Your task to perform on an android device: change your default location settings in chrome Image 0: 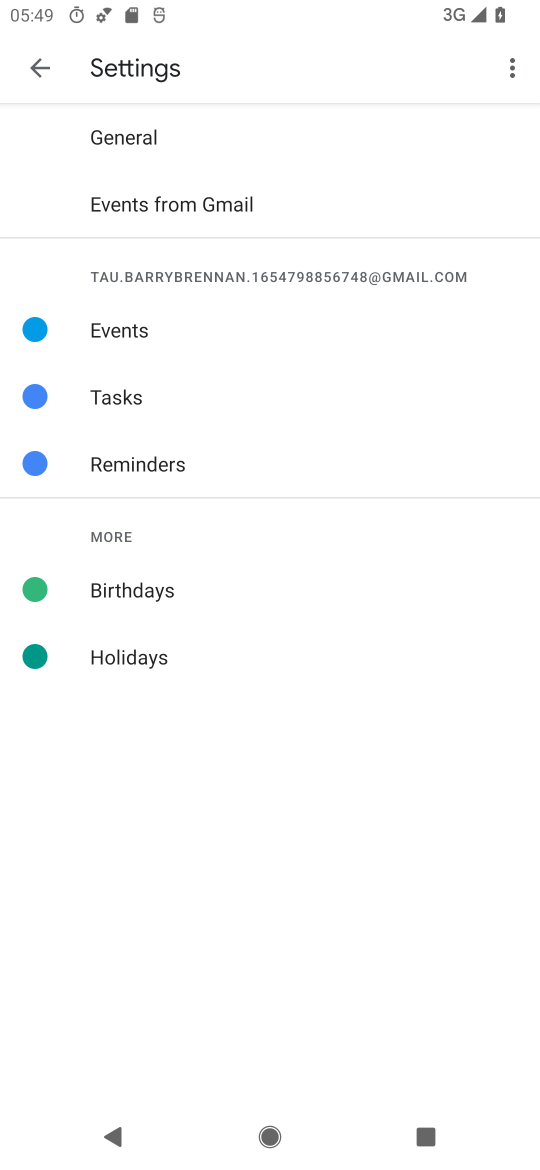
Step 0: press home button
Your task to perform on an android device: change your default location settings in chrome Image 1: 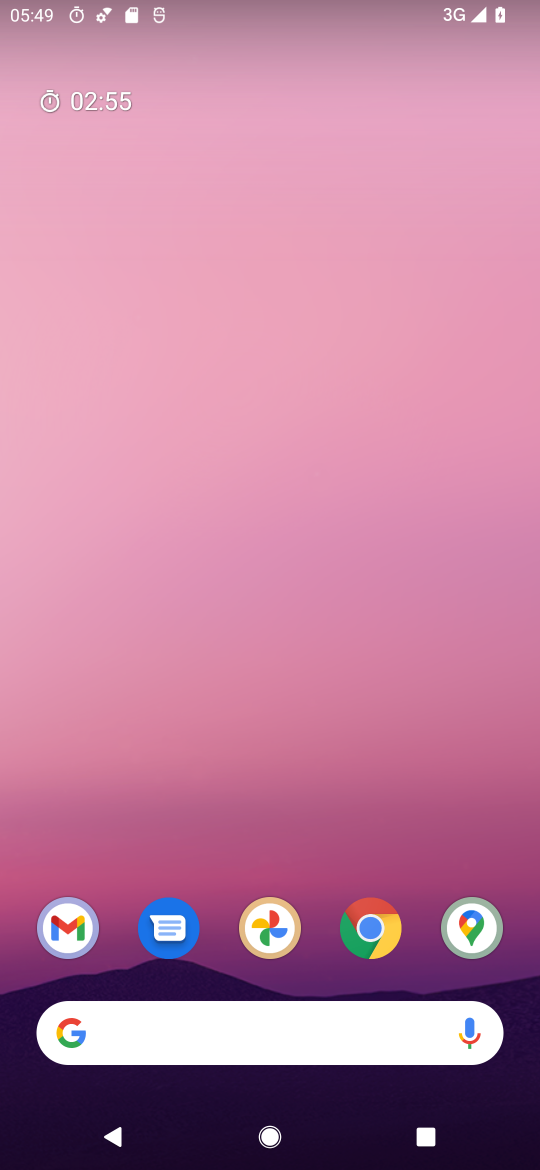
Step 1: click (360, 933)
Your task to perform on an android device: change your default location settings in chrome Image 2: 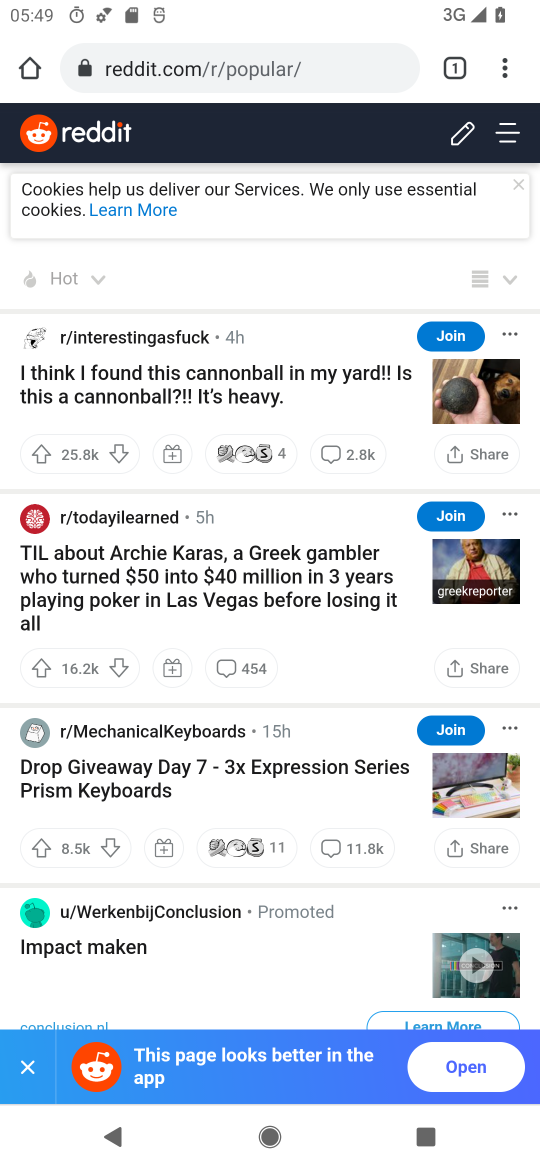
Step 2: click (506, 70)
Your task to perform on an android device: change your default location settings in chrome Image 3: 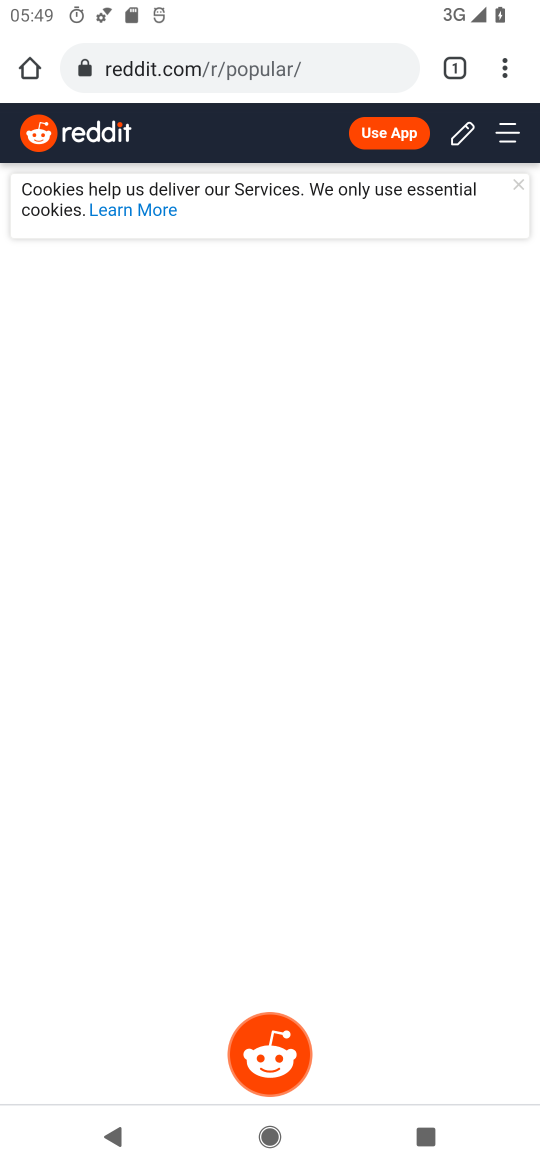
Step 3: click (507, 64)
Your task to perform on an android device: change your default location settings in chrome Image 4: 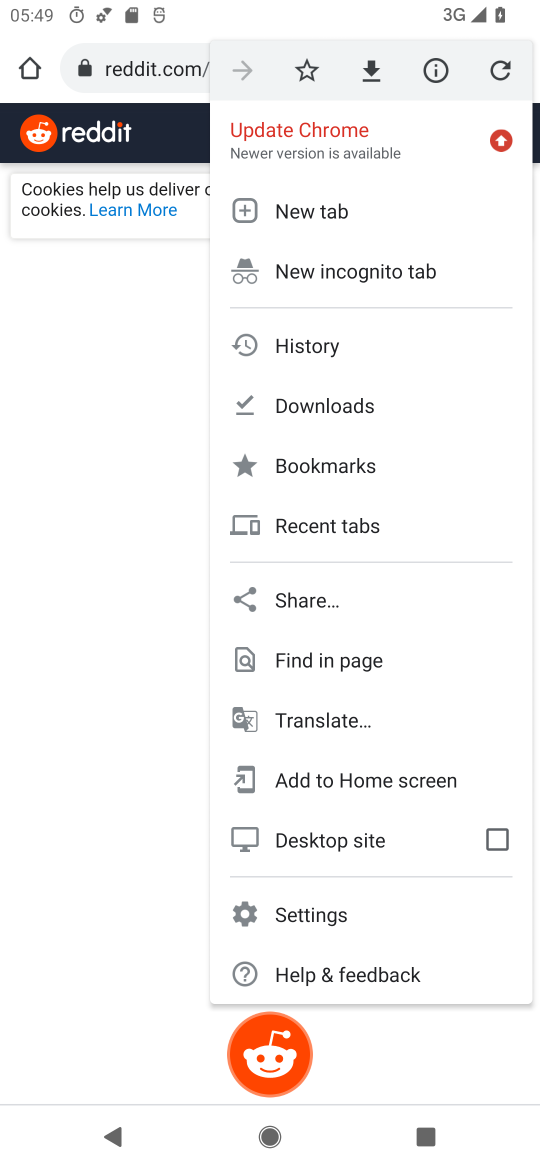
Step 4: click (323, 925)
Your task to perform on an android device: change your default location settings in chrome Image 5: 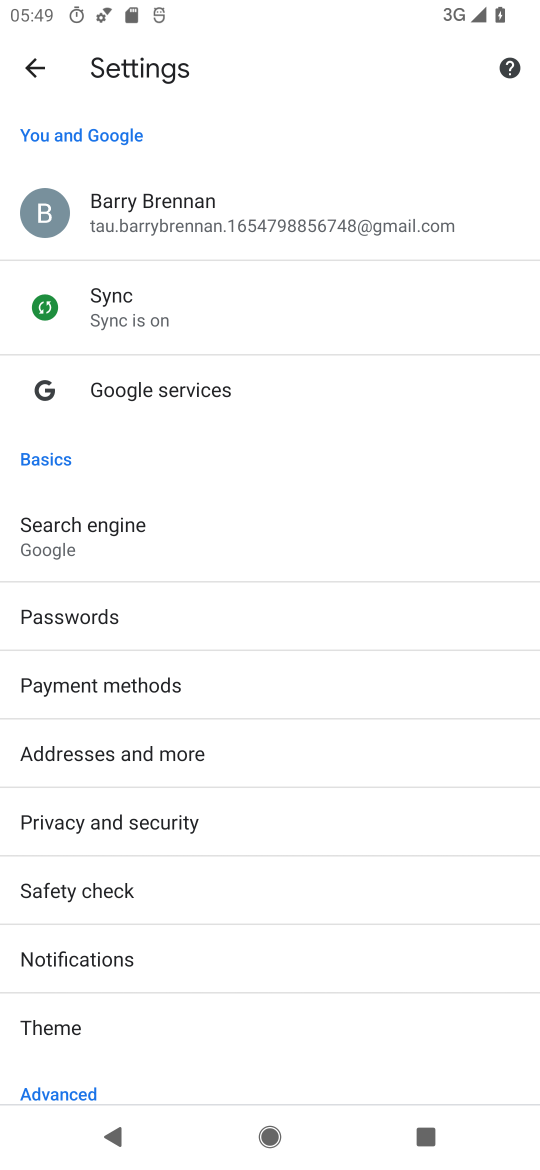
Step 5: drag from (125, 960) to (187, 585)
Your task to perform on an android device: change your default location settings in chrome Image 6: 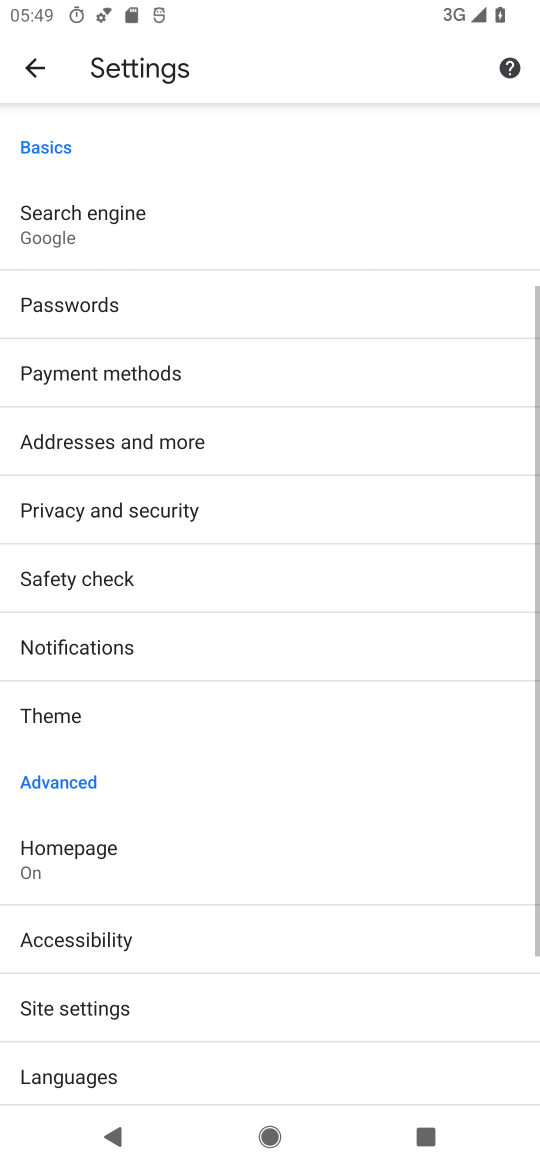
Step 6: click (122, 1008)
Your task to perform on an android device: change your default location settings in chrome Image 7: 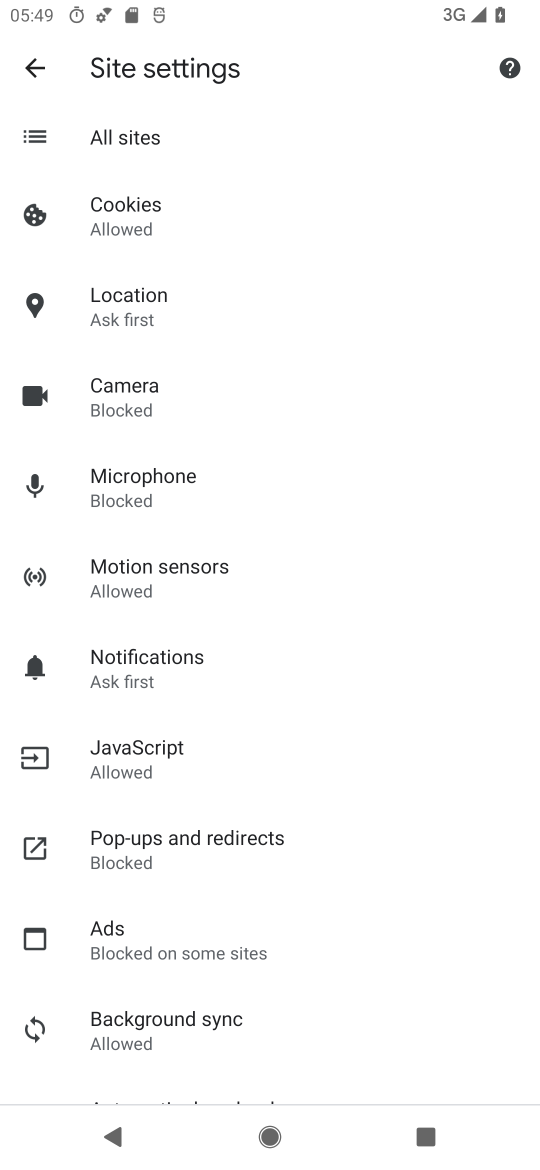
Step 7: click (153, 311)
Your task to perform on an android device: change your default location settings in chrome Image 8: 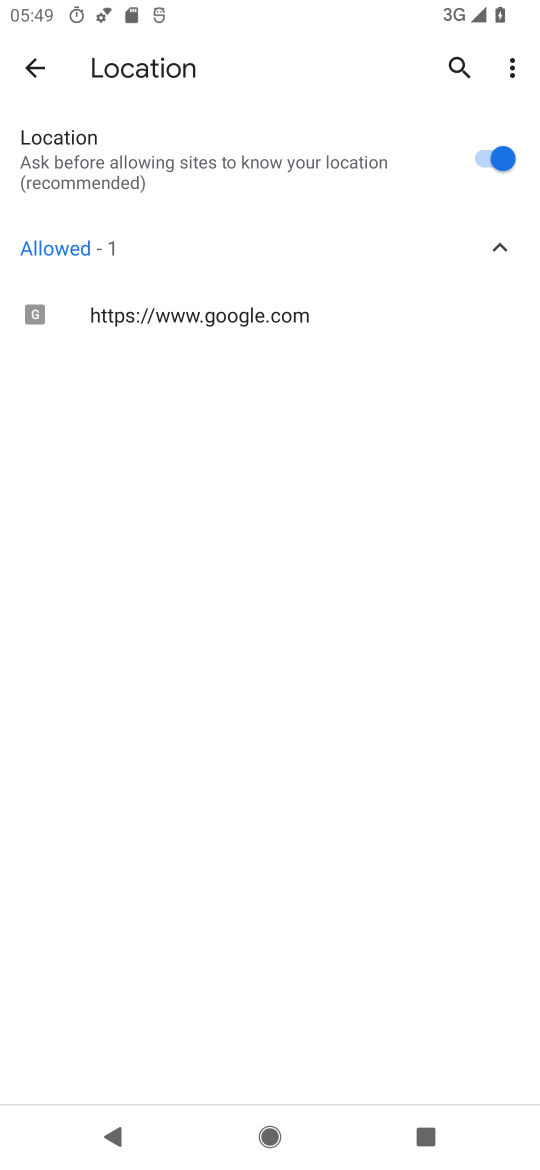
Step 8: click (469, 155)
Your task to perform on an android device: change your default location settings in chrome Image 9: 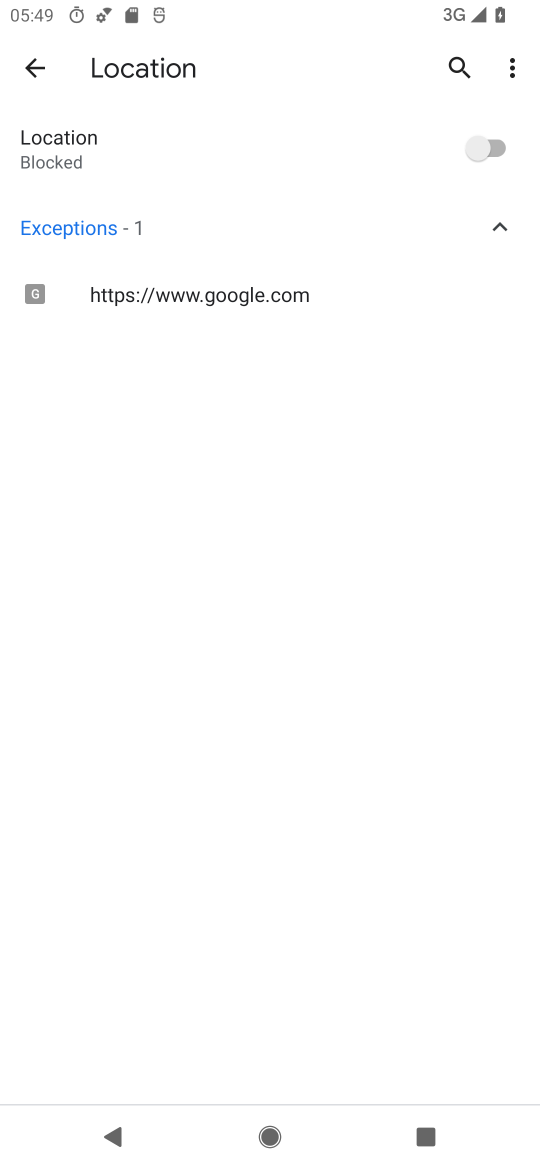
Step 9: task complete